Your task to perform on an android device: Is it going to rain this weekend? Image 0: 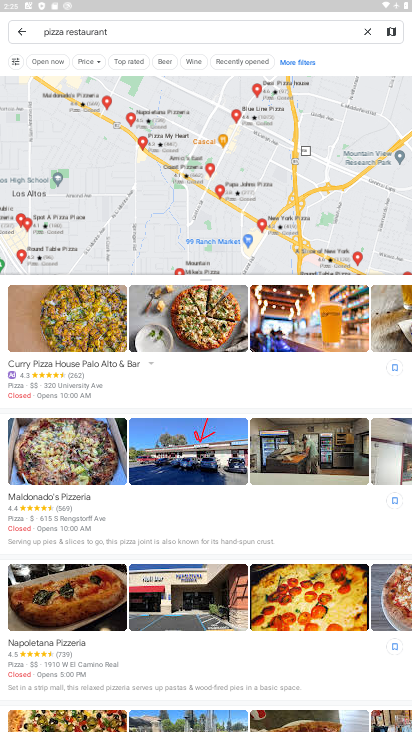
Step 0: press home button
Your task to perform on an android device: Is it going to rain this weekend? Image 1: 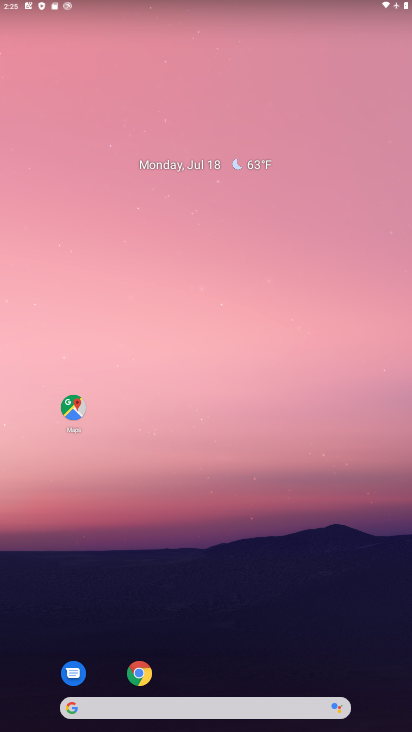
Step 1: click (144, 674)
Your task to perform on an android device: Is it going to rain this weekend? Image 2: 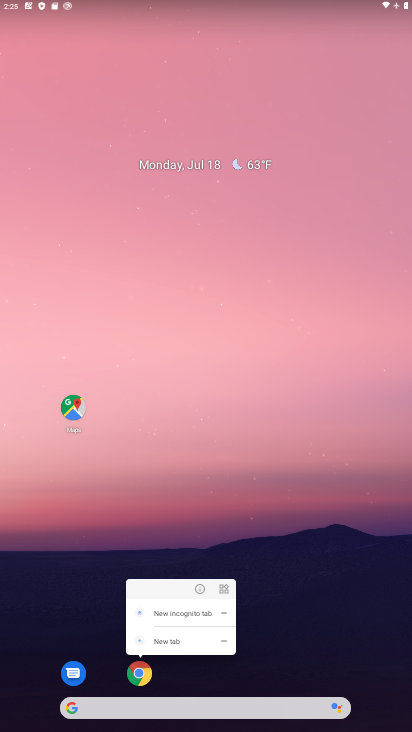
Step 2: click (144, 674)
Your task to perform on an android device: Is it going to rain this weekend? Image 3: 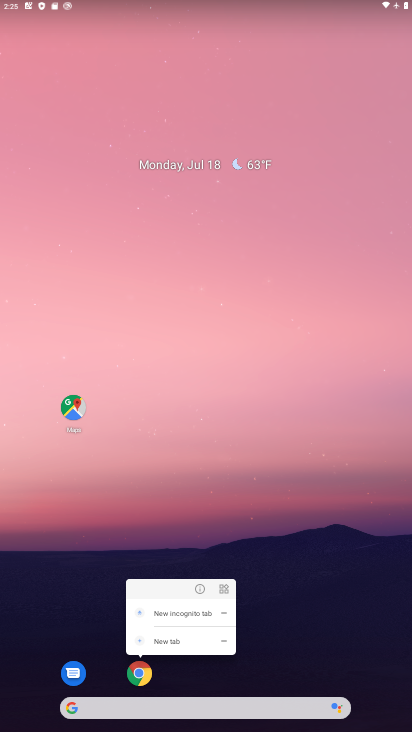
Step 3: click (217, 435)
Your task to perform on an android device: Is it going to rain this weekend? Image 4: 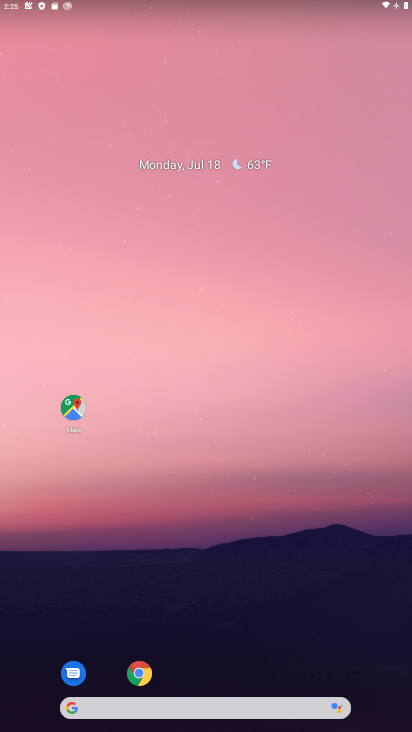
Step 4: drag from (190, 621) to (174, 280)
Your task to perform on an android device: Is it going to rain this weekend? Image 5: 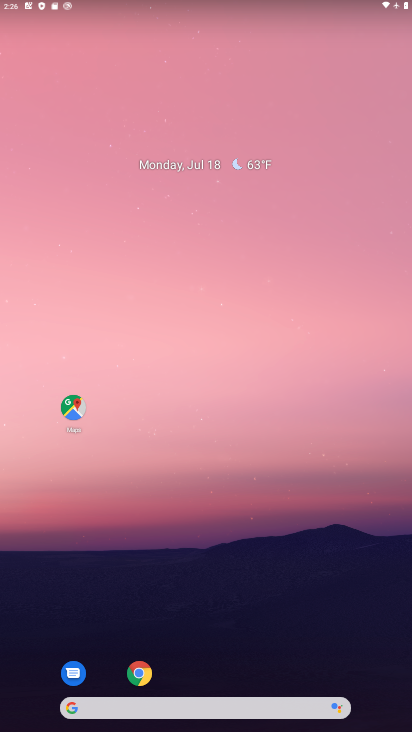
Step 5: drag from (257, 631) to (198, 173)
Your task to perform on an android device: Is it going to rain this weekend? Image 6: 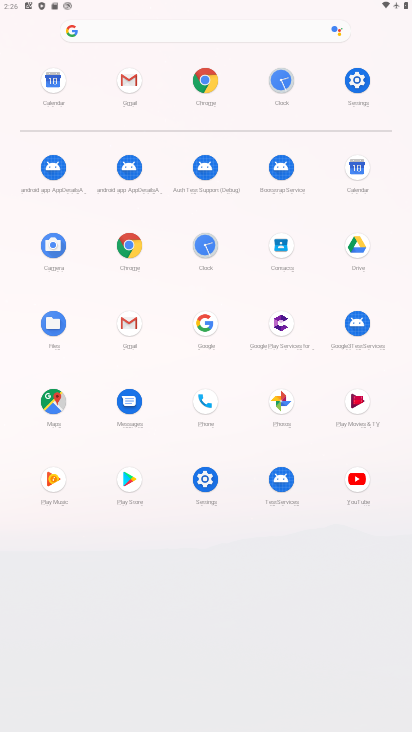
Step 6: click (132, 246)
Your task to perform on an android device: Is it going to rain this weekend? Image 7: 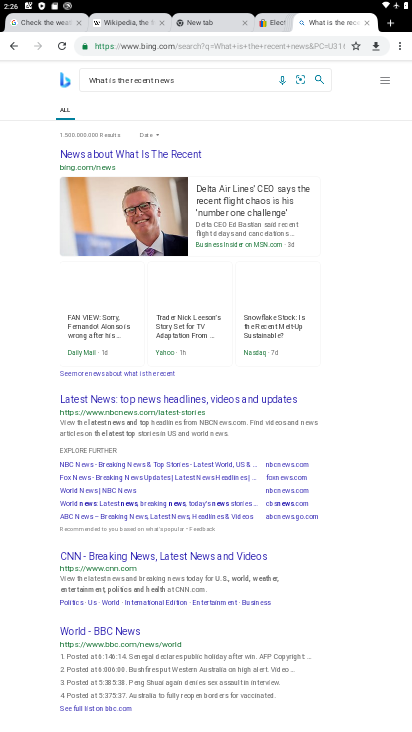
Step 7: click (367, 21)
Your task to perform on an android device: Is it going to rain this weekend? Image 8: 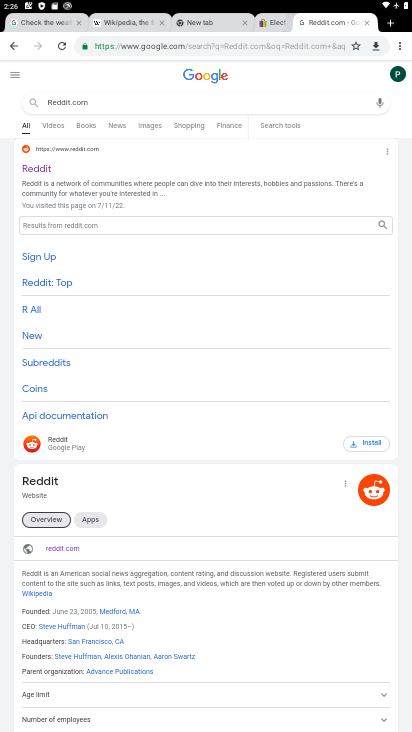
Step 8: click (393, 23)
Your task to perform on an android device: Is it going to rain this weekend? Image 9: 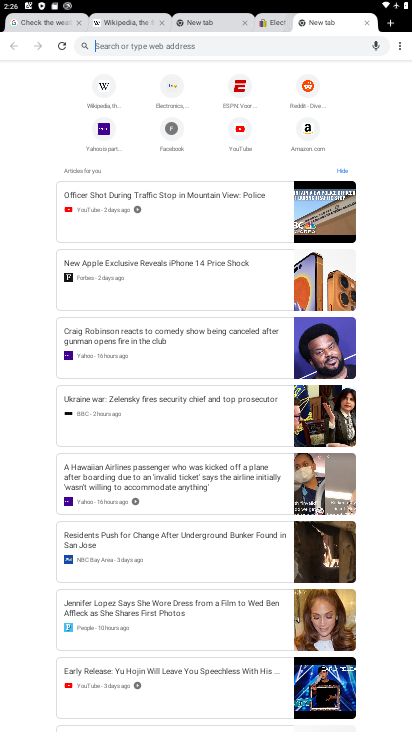
Step 9: click (203, 32)
Your task to perform on an android device: Is it going to rain this weekend? Image 10: 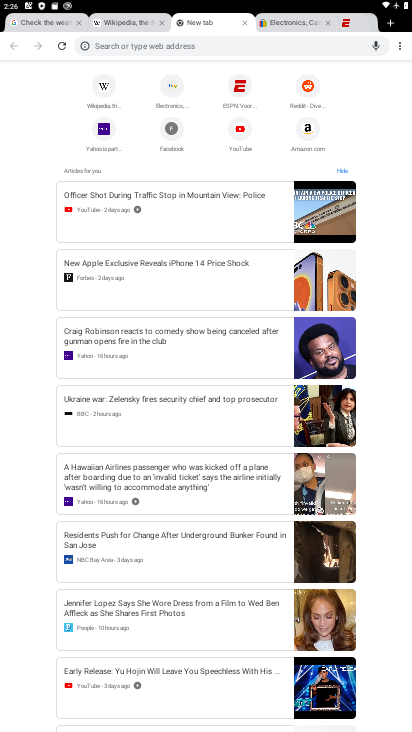
Step 10: type "Is it going to rain this weekend "
Your task to perform on an android device: Is it going to rain this weekend? Image 11: 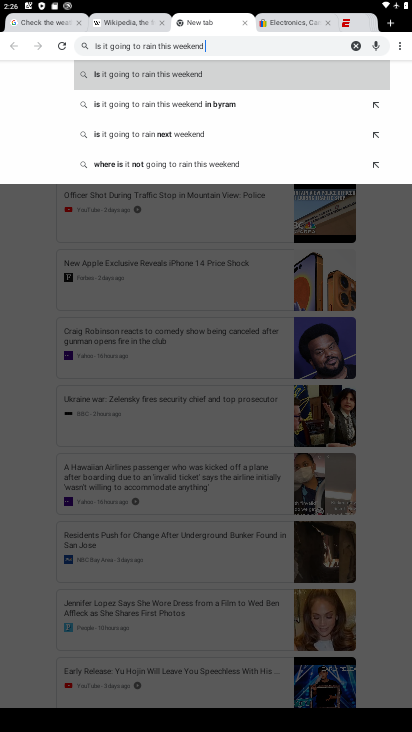
Step 11: click (213, 71)
Your task to perform on an android device: Is it going to rain this weekend? Image 12: 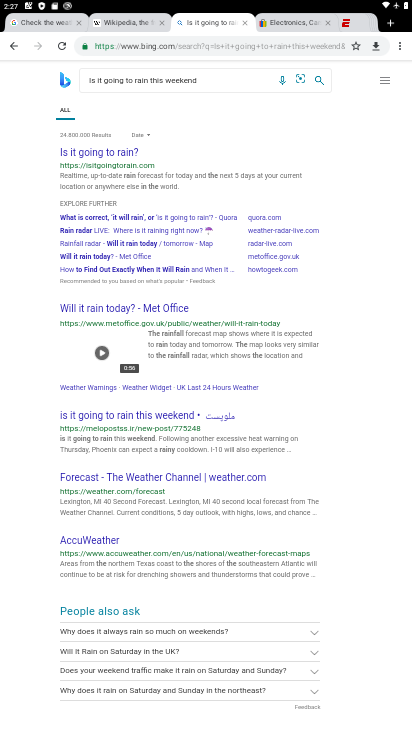
Step 12: task complete